Your task to perform on an android device: clear history in the chrome app Image 0: 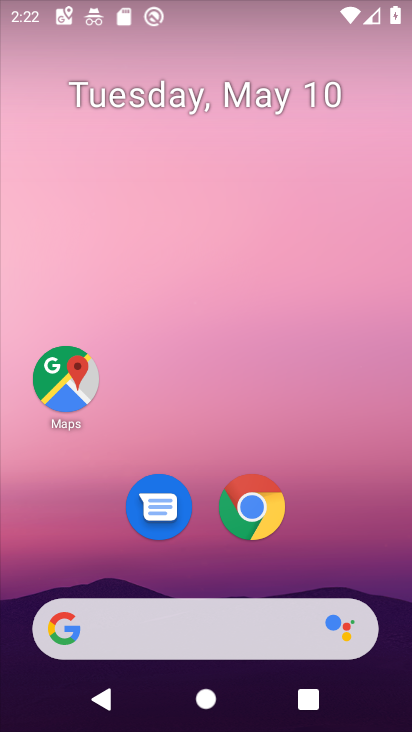
Step 0: click (252, 506)
Your task to perform on an android device: clear history in the chrome app Image 1: 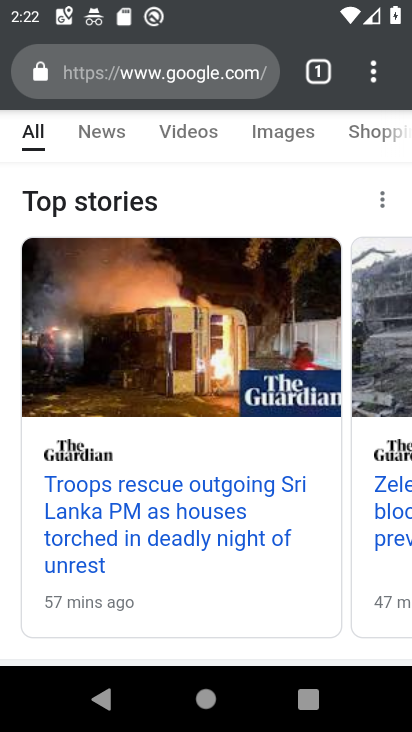
Step 1: click (375, 72)
Your task to perform on an android device: clear history in the chrome app Image 2: 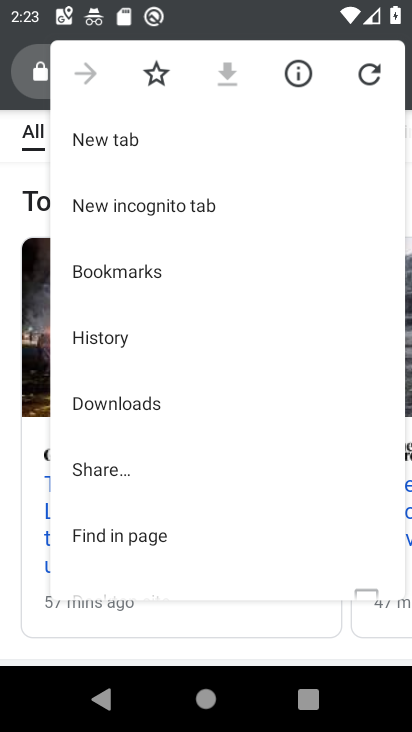
Step 2: click (98, 344)
Your task to perform on an android device: clear history in the chrome app Image 3: 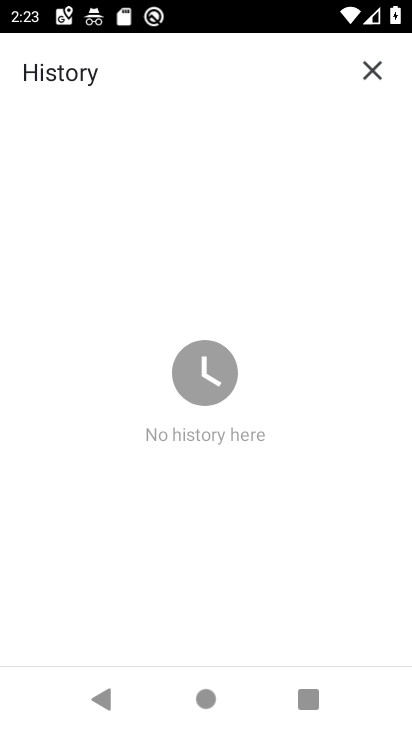
Step 3: task complete